Your task to perform on an android device: What's the weather going to be tomorrow? Image 0: 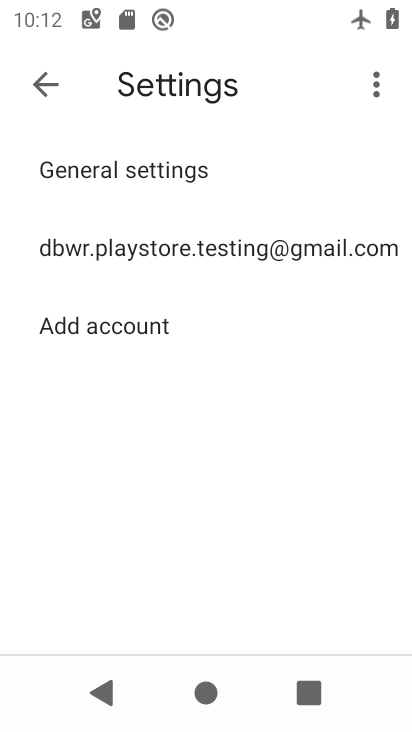
Step 0: press home button
Your task to perform on an android device: What's the weather going to be tomorrow? Image 1: 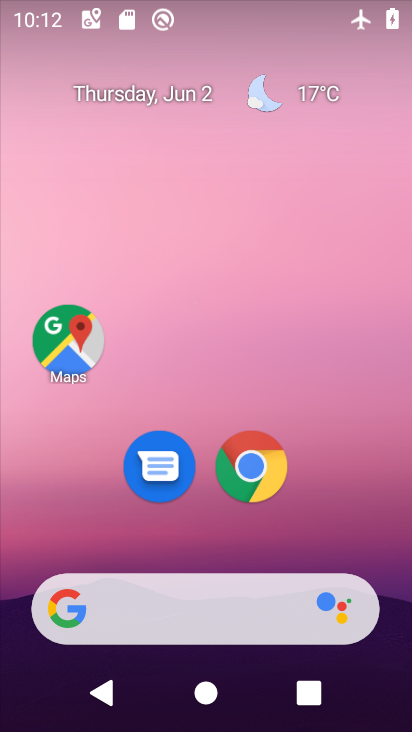
Step 1: click (229, 468)
Your task to perform on an android device: What's the weather going to be tomorrow? Image 2: 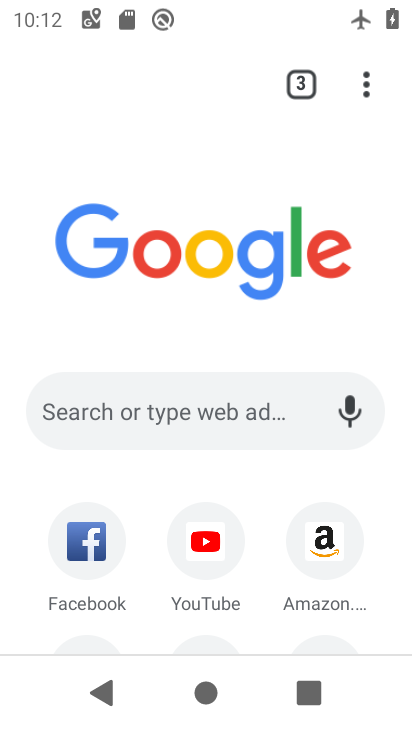
Step 2: click (204, 422)
Your task to perform on an android device: What's the weather going to be tomorrow? Image 3: 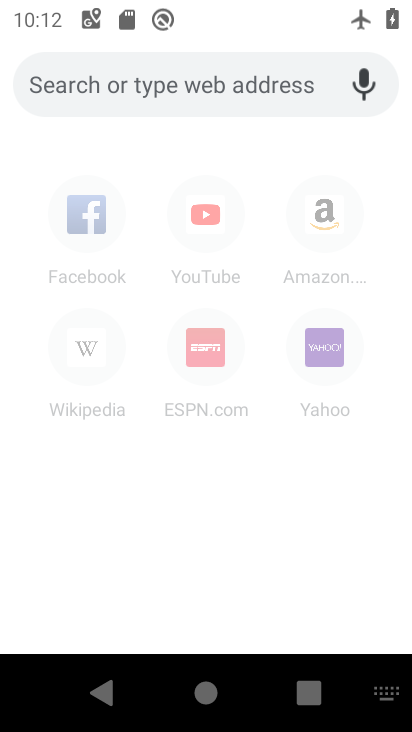
Step 3: type "What's the weather going to be tomorrow?"
Your task to perform on an android device: What's the weather going to be tomorrow? Image 4: 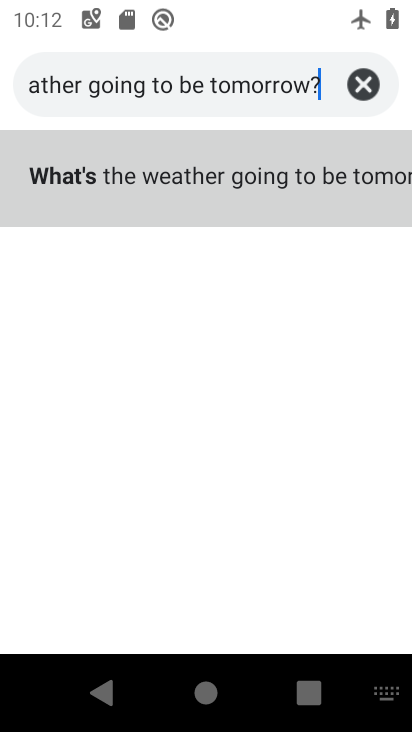
Step 4: click (207, 176)
Your task to perform on an android device: What's the weather going to be tomorrow? Image 5: 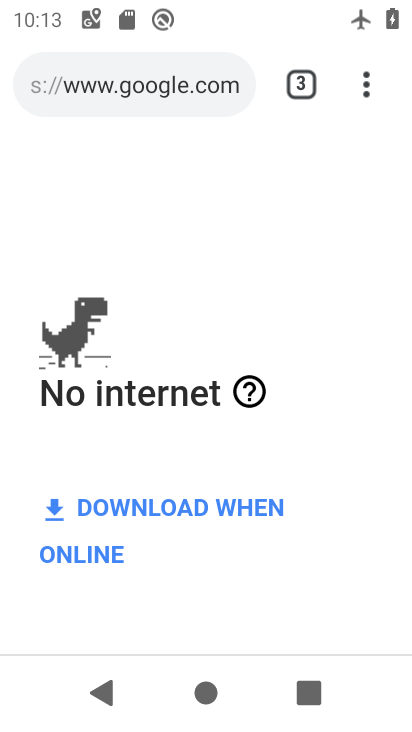
Step 5: task complete